Your task to perform on an android device: open app "Facebook Lite" (install if not already installed) Image 0: 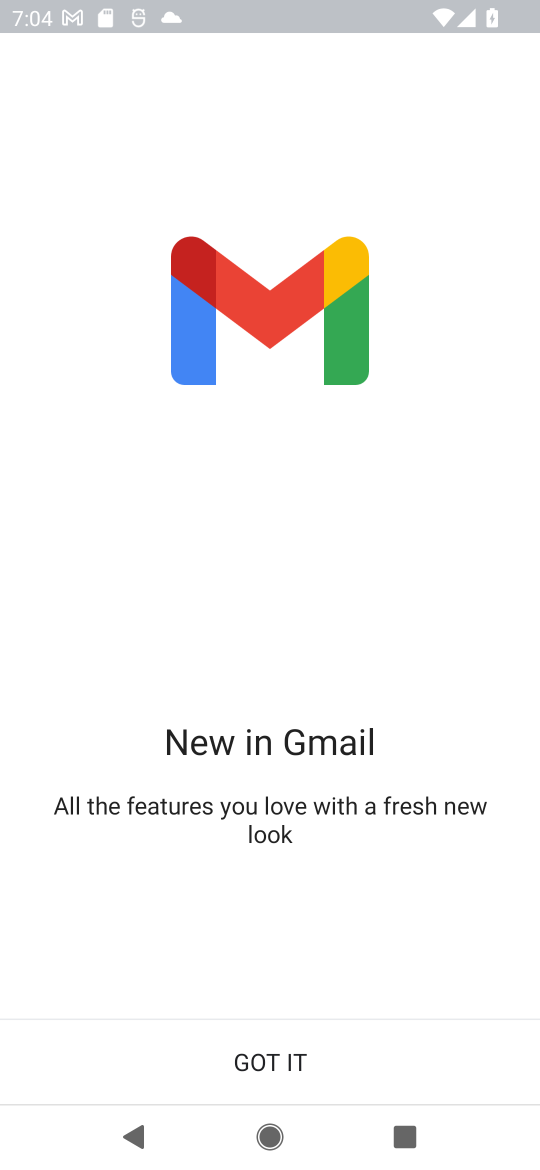
Step 0: press home button
Your task to perform on an android device: open app "Facebook Lite" (install if not already installed) Image 1: 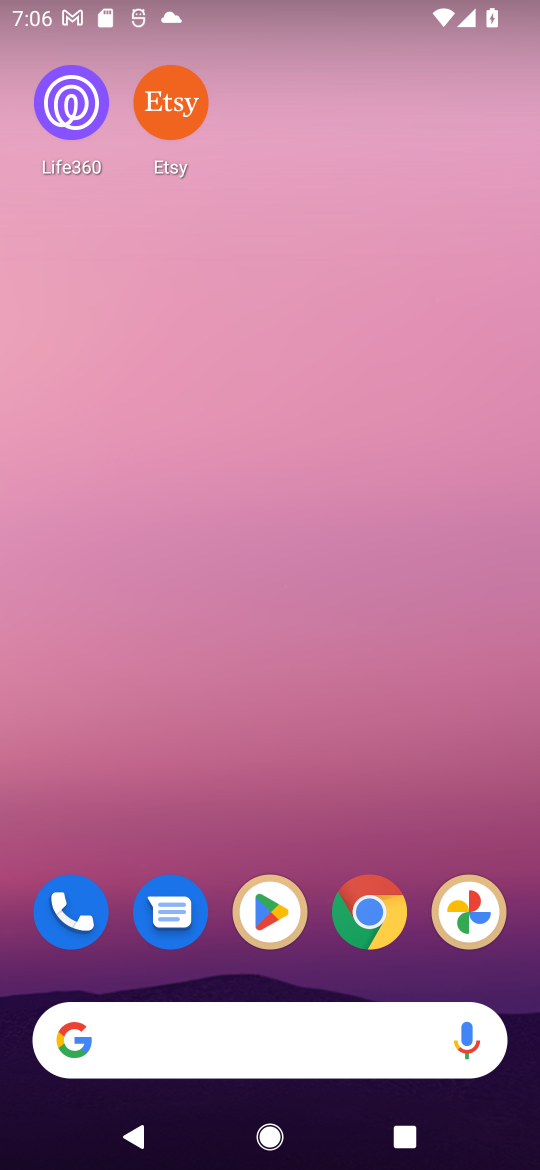
Step 1: drag from (500, 959) to (382, 42)
Your task to perform on an android device: open app "Facebook Lite" (install if not already installed) Image 2: 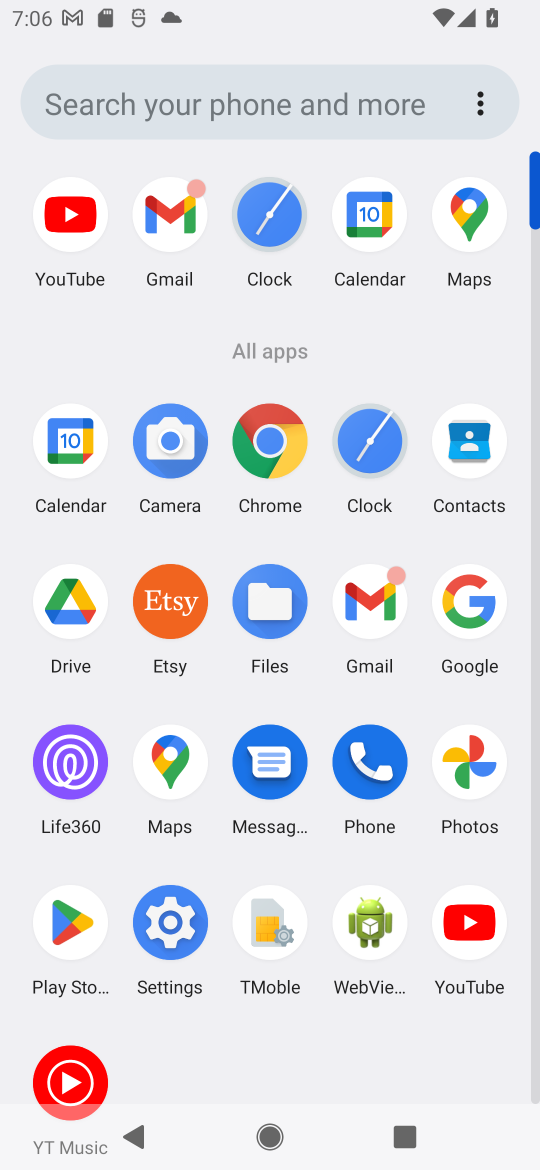
Step 2: click (45, 911)
Your task to perform on an android device: open app "Facebook Lite" (install if not already installed) Image 3: 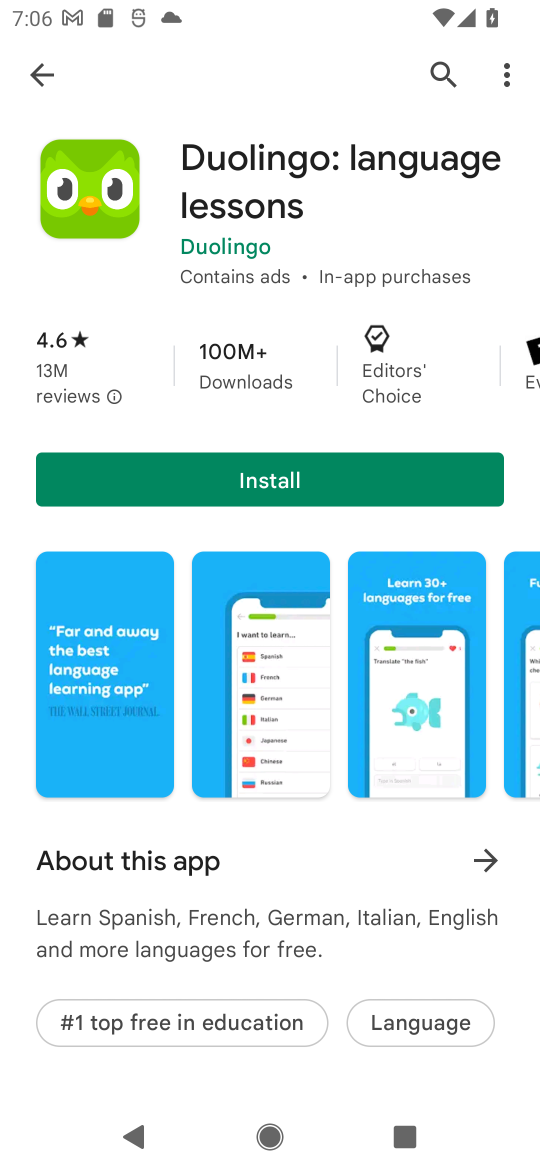
Step 3: press back button
Your task to perform on an android device: open app "Facebook Lite" (install if not already installed) Image 4: 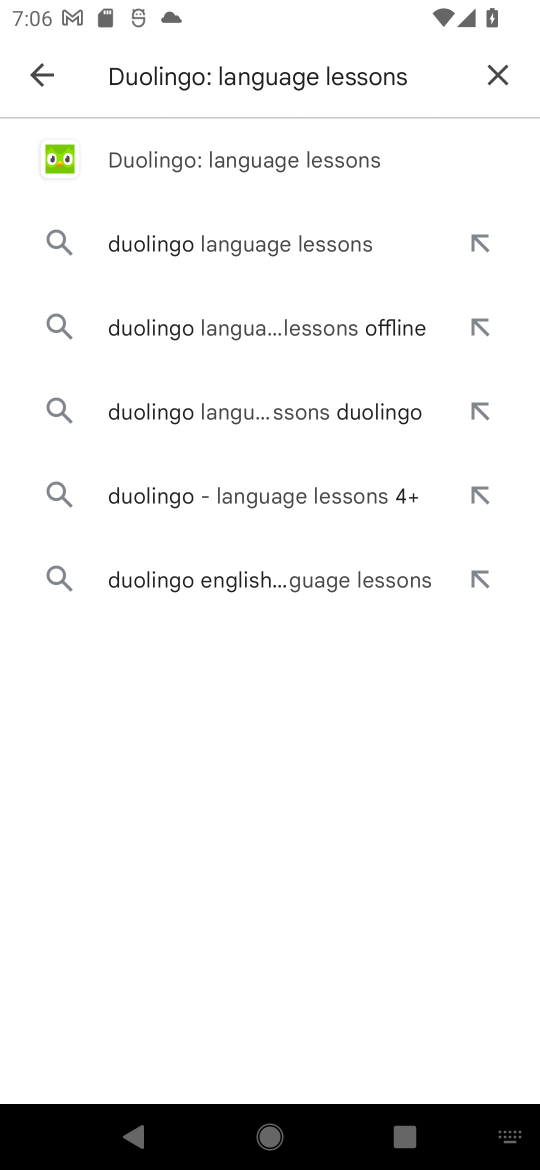
Step 4: press back button
Your task to perform on an android device: open app "Facebook Lite" (install if not already installed) Image 5: 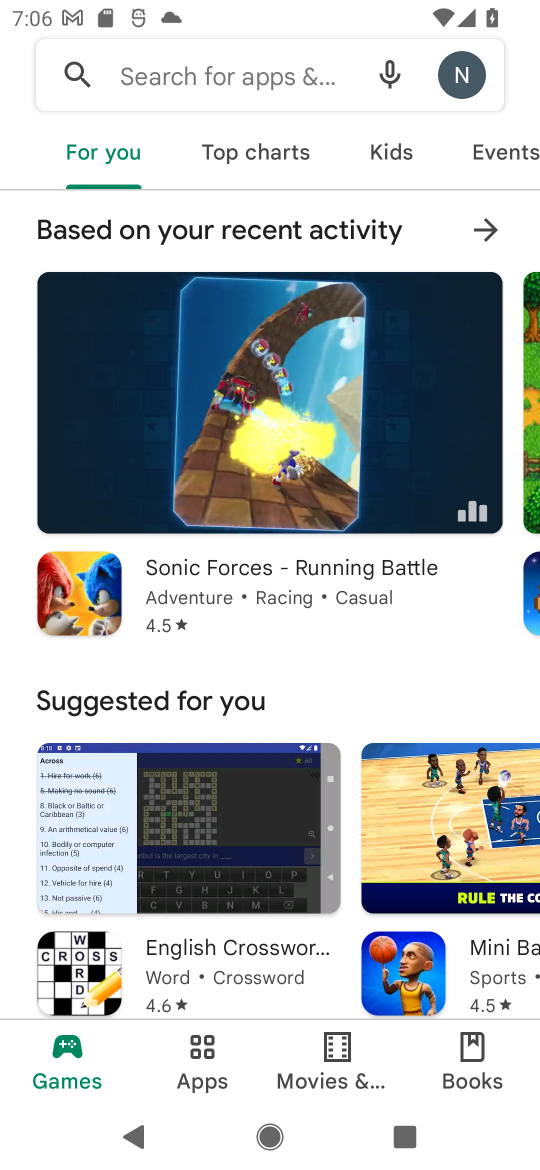
Step 5: click (213, 75)
Your task to perform on an android device: open app "Facebook Lite" (install if not already installed) Image 6: 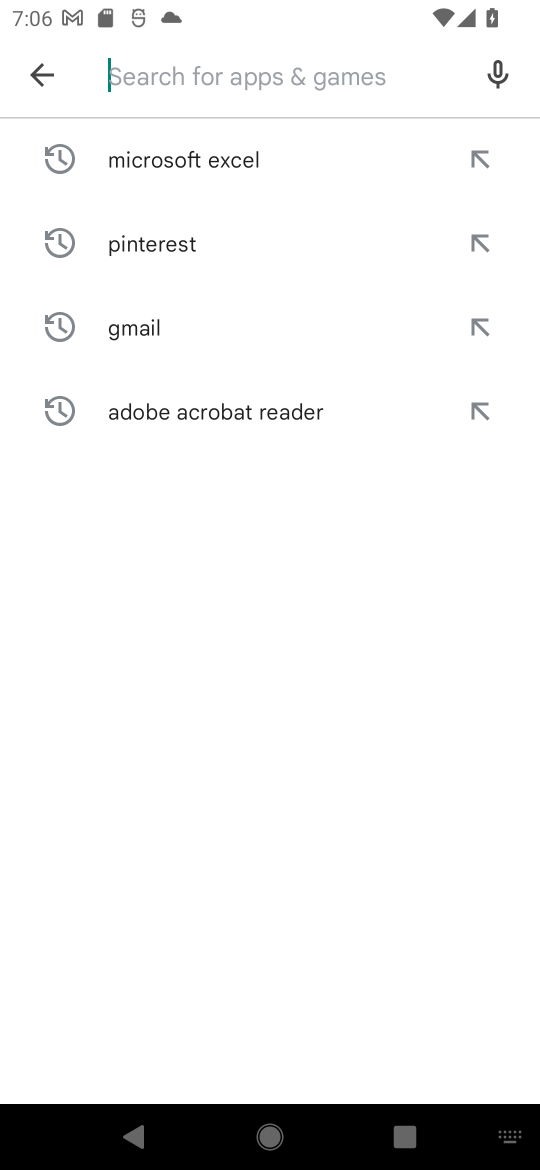
Step 6: type "Facebook Lite"
Your task to perform on an android device: open app "Facebook Lite" (install if not already installed) Image 7: 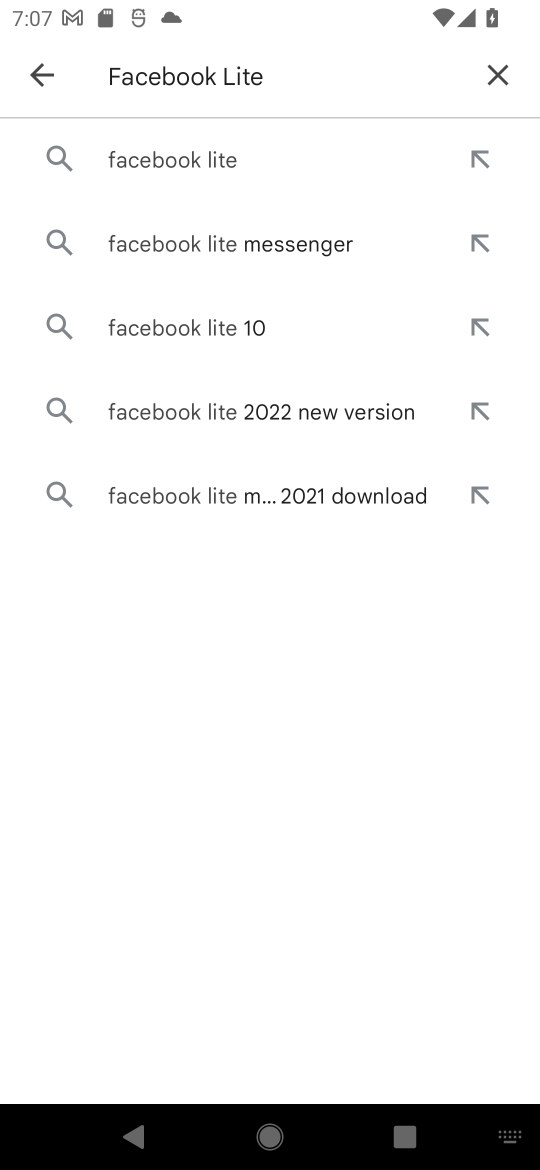
Step 7: click (195, 174)
Your task to perform on an android device: open app "Facebook Lite" (install if not already installed) Image 8: 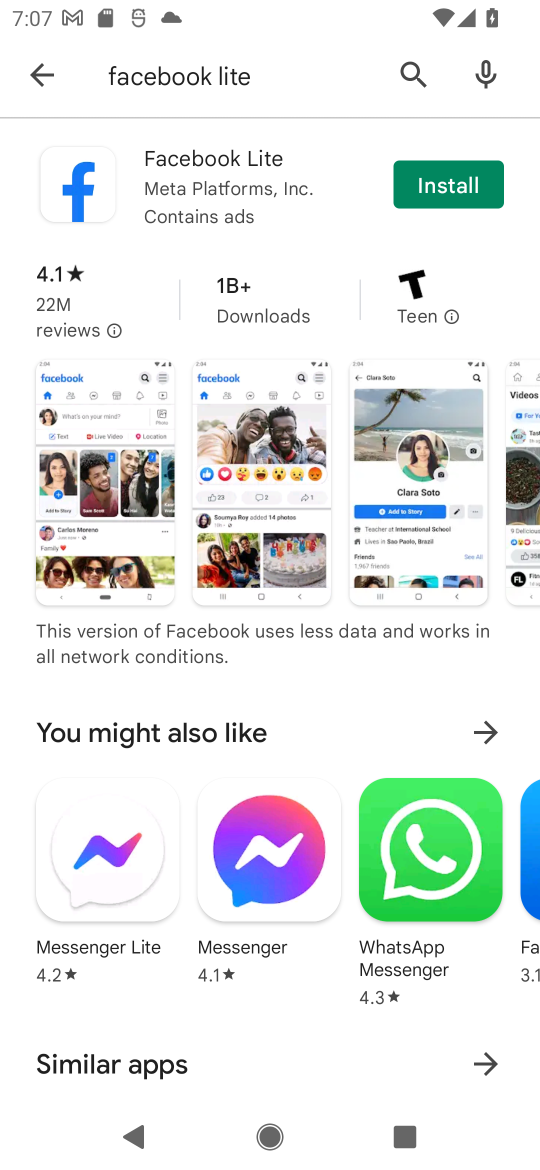
Step 8: task complete